Your task to perform on an android device: Search for Mexican restaurants on Maps Image 0: 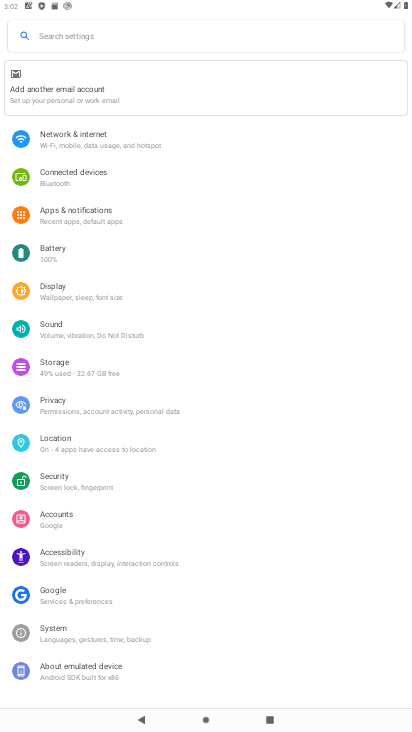
Step 0: press home button
Your task to perform on an android device: Search for Mexican restaurants on Maps Image 1: 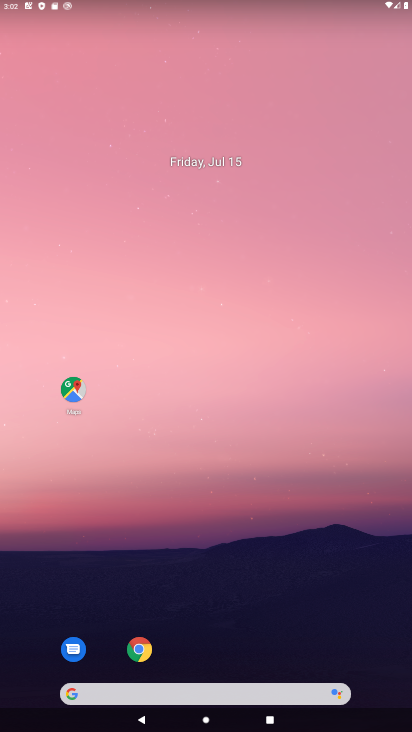
Step 1: drag from (356, 573) to (340, 161)
Your task to perform on an android device: Search for Mexican restaurants on Maps Image 2: 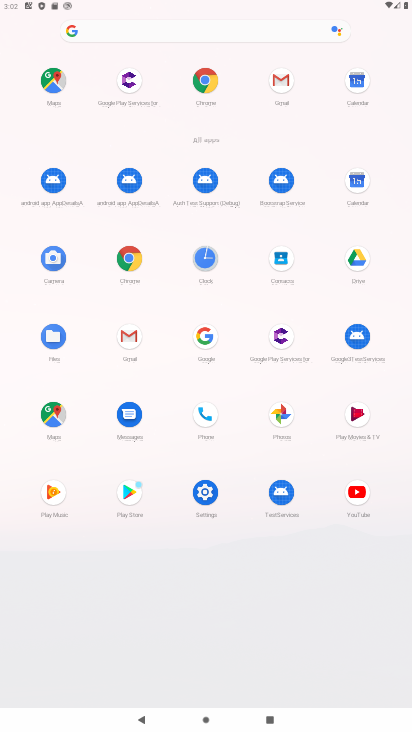
Step 2: click (44, 77)
Your task to perform on an android device: Search for Mexican restaurants on Maps Image 3: 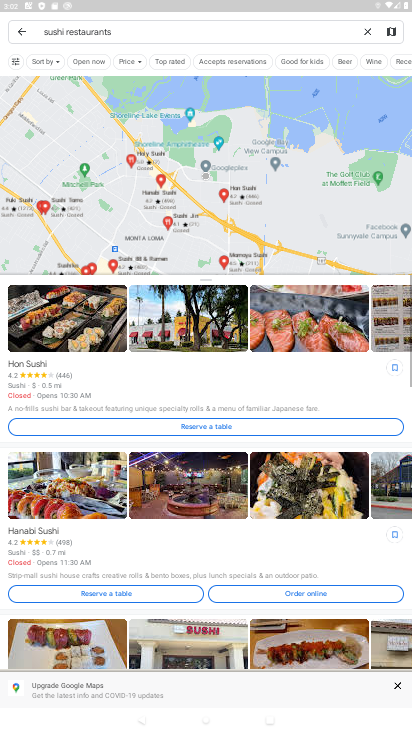
Step 3: click (130, 34)
Your task to perform on an android device: Search for Mexican restaurants on Maps Image 4: 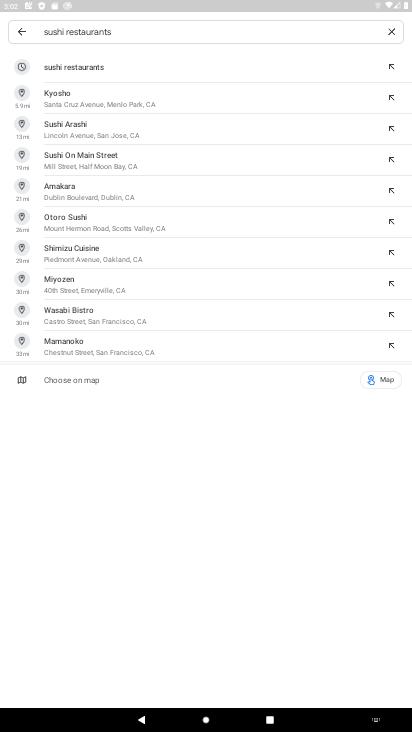
Step 4: click (392, 31)
Your task to perform on an android device: Search for Mexican restaurants on Maps Image 5: 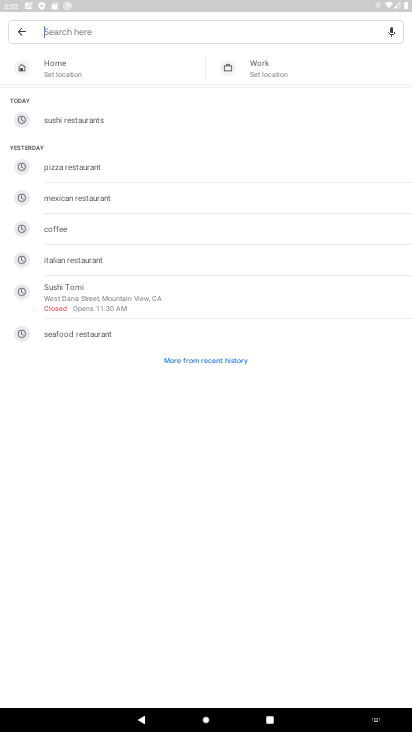
Step 5: type "Mexican restaurants"
Your task to perform on an android device: Search for Mexican restaurants on Maps Image 6: 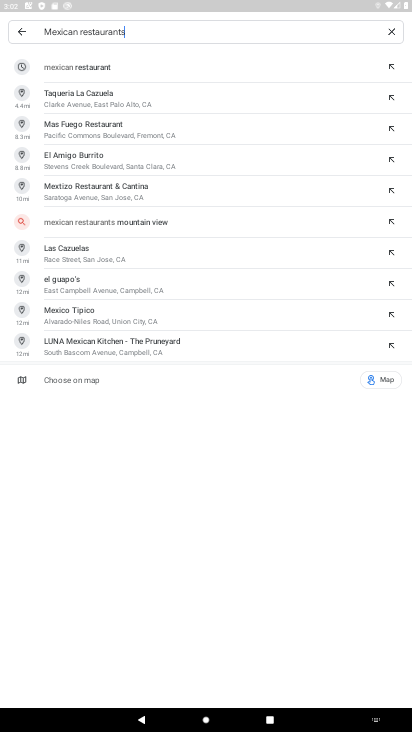
Step 6: press enter
Your task to perform on an android device: Search for Mexican restaurants on Maps Image 7: 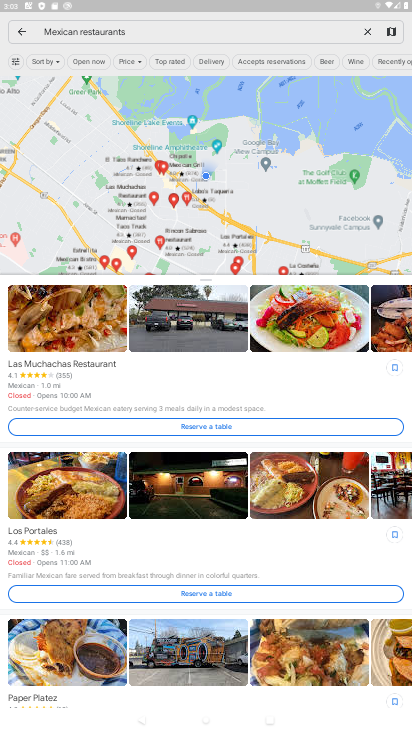
Step 7: task complete